Your task to perform on an android device: show emergency info Image 0: 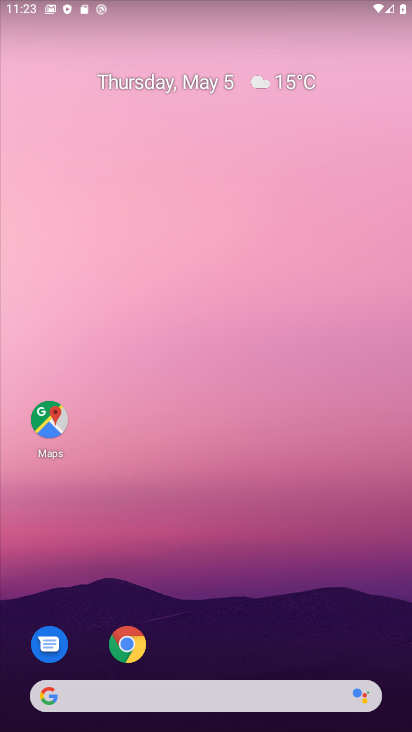
Step 0: drag from (194, 655) to (263, 94)
Your task to perform on an android device: show emergency info Image 1: 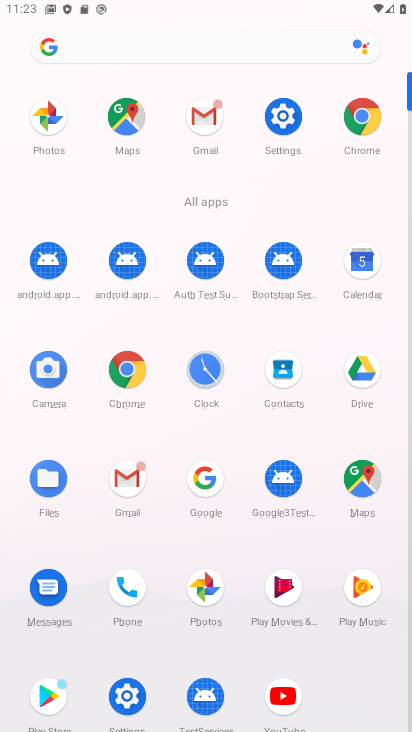
Step 1: click (286, 125)
Your task to perform on an android device: show emergency info Image 2: 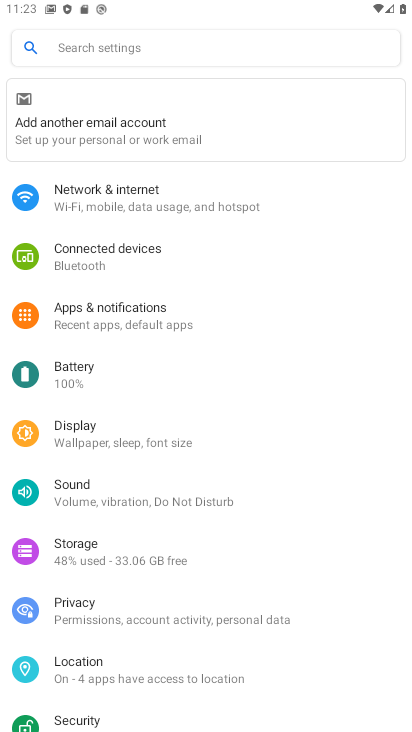
Step 2: drag from (152, 577) to (264, 95)
Your task to perform on an android device: show emergency info Image 3: 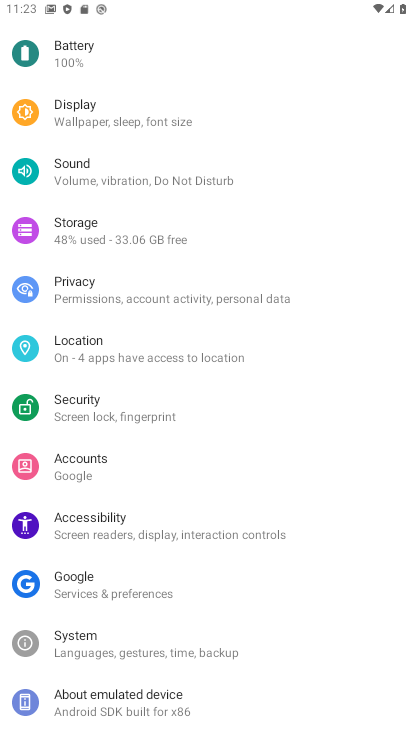
Step 3: click (122, 708)
Your task to perform on an android device: show emergency info Image 4: 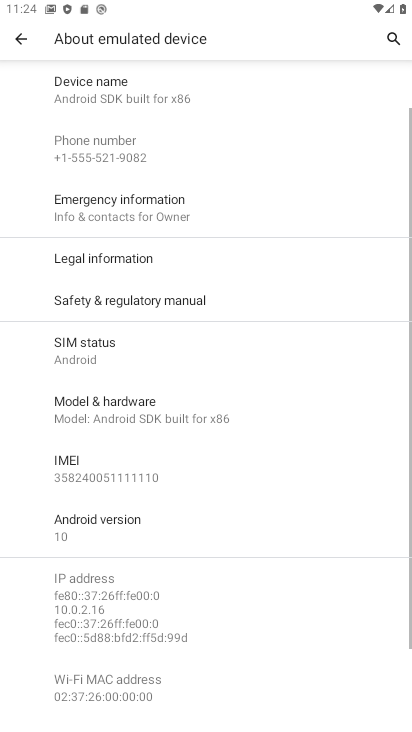
Step 4: click (142, 216)
Your task to perform on an android device: show emergency info Image 5: 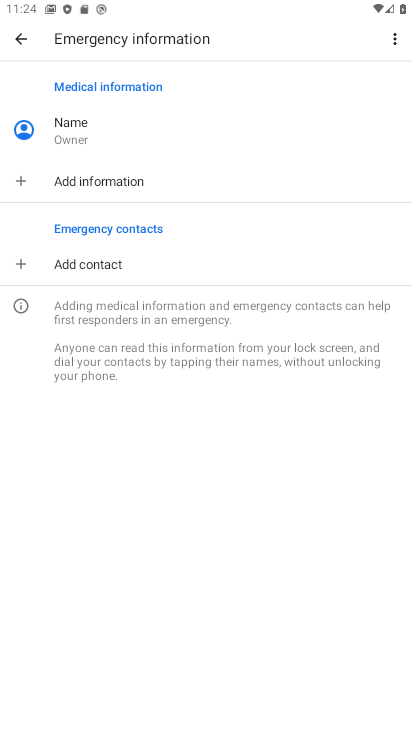
Step 5: task complete